Your task to perform on an android device: Play the last video I watched on Youtube Image 0: 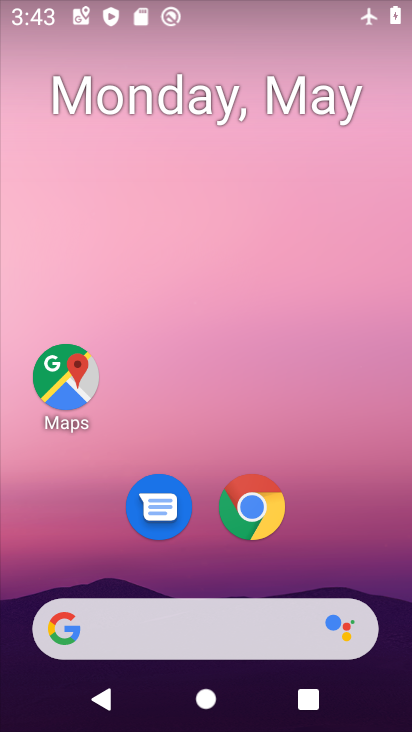
Step 0: drag from (210, 581) to (184, 301)
Your task to perform on an android device: Play the last video I watched on Youtube Image 1: 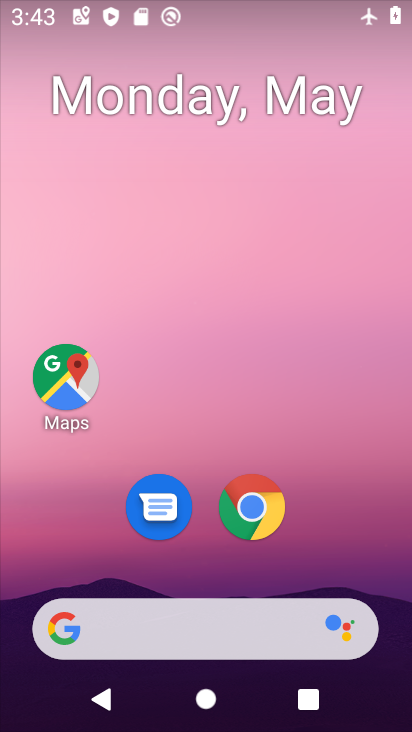
Step 1: drag from (199, 563) to (217, 111)
Your task to perform on an android device: Play the last video I watched on Youtube Image 2: 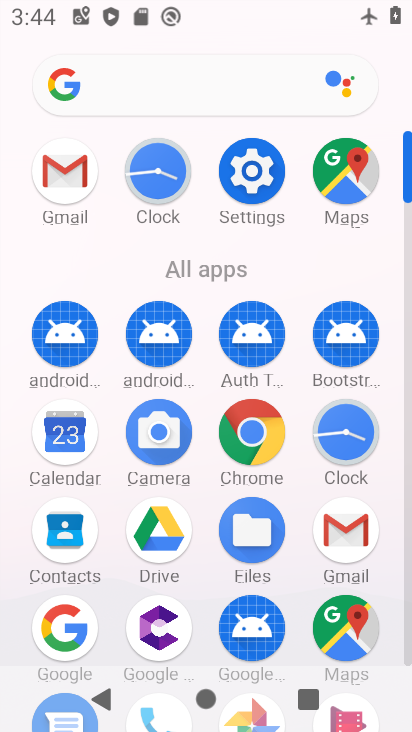
Step 2: drag from (187, 586) to (185, 282)
Your task to perform on an android device: Play the last video I watched on Youtube Image 3: 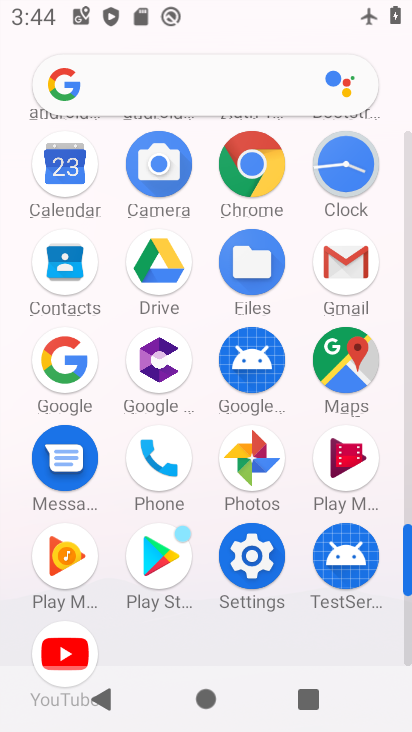
Step 3: click (45, 650)
Your task to perform on an android device: Play the last video I watched on Youtube Image 4: 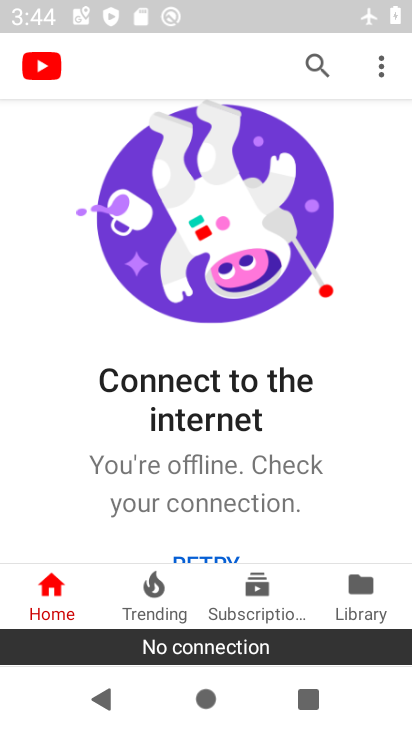
Step 4: drag from (236, 17) to (262, 568)
Your task to perform on an android device: Play the last video I watched on Youtube Image 5: 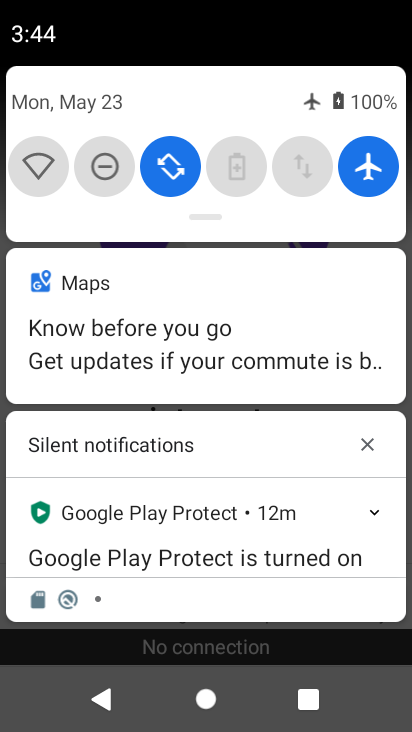
Step 5: click (374, 154)
Your task to perform on an android device: Play the last video I watched on Youtube Image 6: 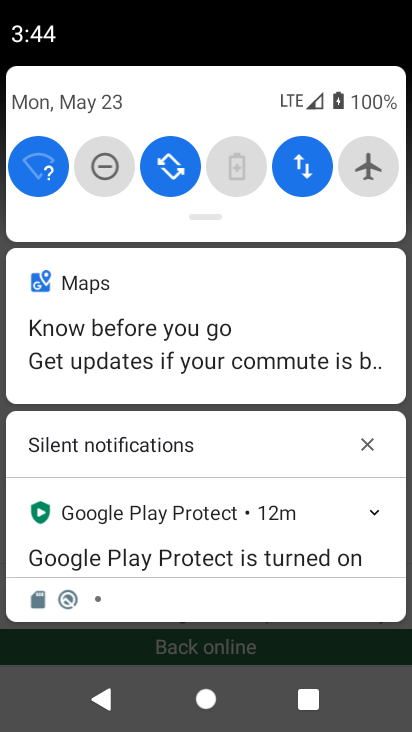
Step 6: task complete